Your task to perform on an android device: turn on notifications settings in the gmail app Image 0: 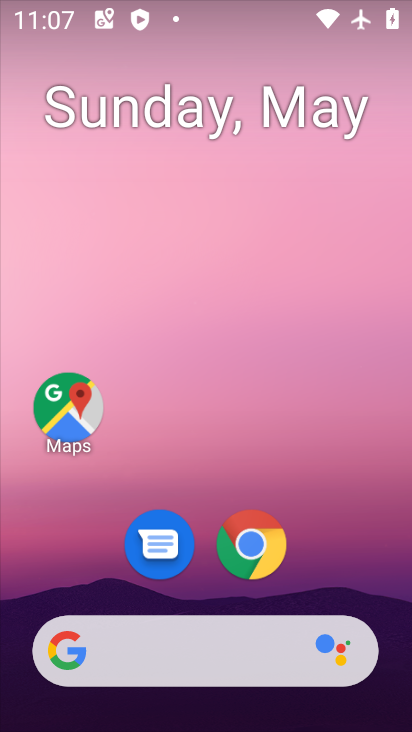
Step 0: drag from (319, 580) to (376, 189)
Your task to perform on an android device: turn on notifications settings in the gmail app Image 1: 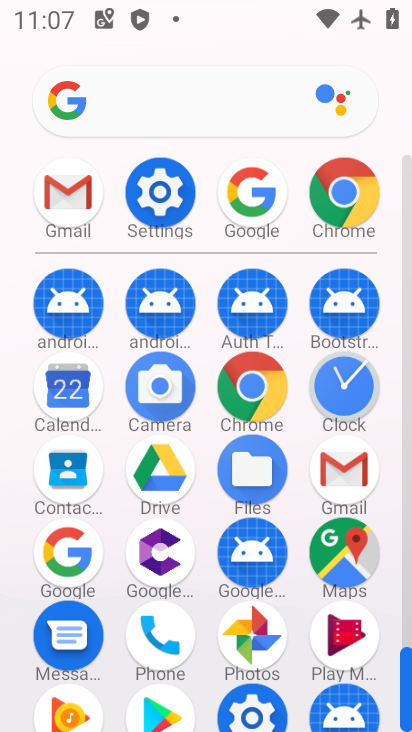
Step 1: click (80, 195)
Your task to perform on an android device: turn on notifications settings in the gmail app Image 2: 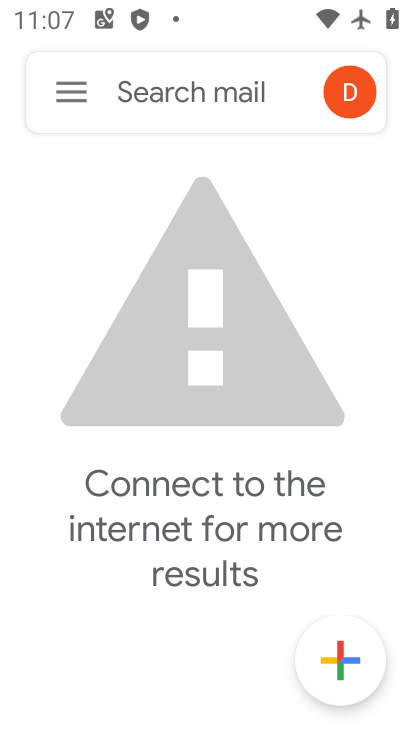
Step 2: click (68, 77)
Your task to perform on an android device: turn on notifications settings in the gmail app Image 3: 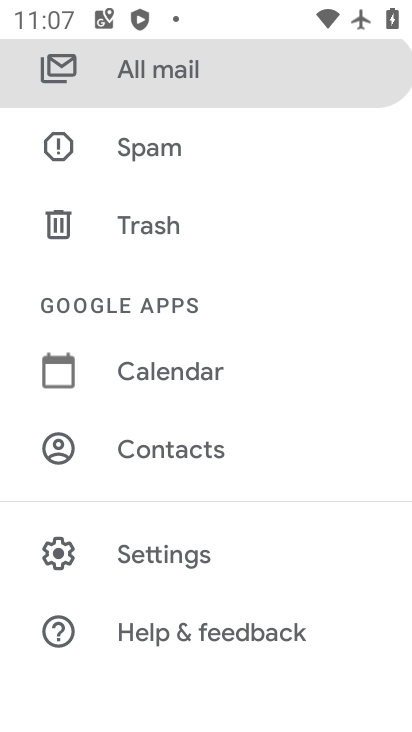
Step 3: click (208, 568)
Your task to perform on an android device: turn on notifications settings in the gmail app Image 4: 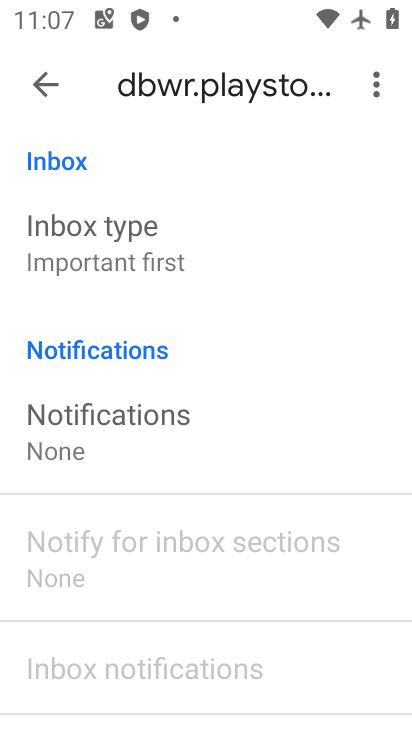
Step 4: click (128, 427)
Your task to perform on an android device: turn on notifications settings in the gmail app Image 5: 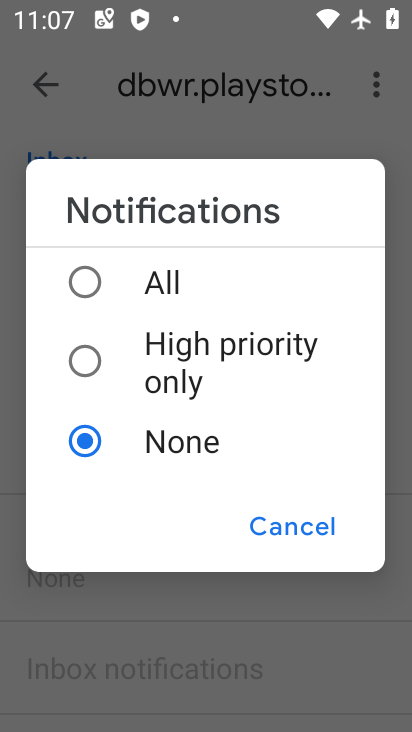
Step 5: click (123, 276)
Your task to perform on an android device: turn on notifications settings in the gmail app Image 6: 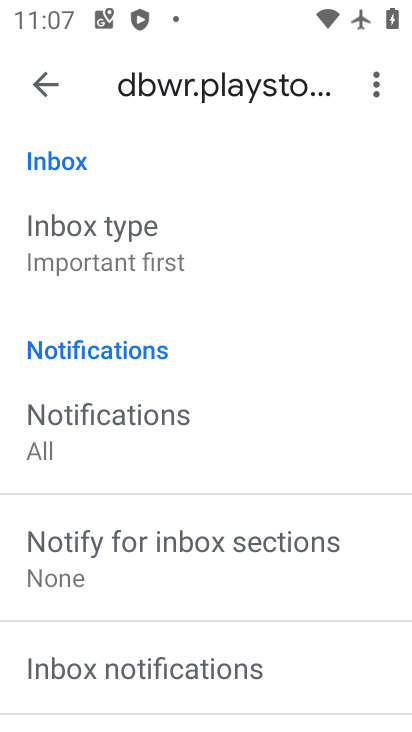
Step 6: task complete